Your task to perform on an android device: Open Wikipedia Image 0: 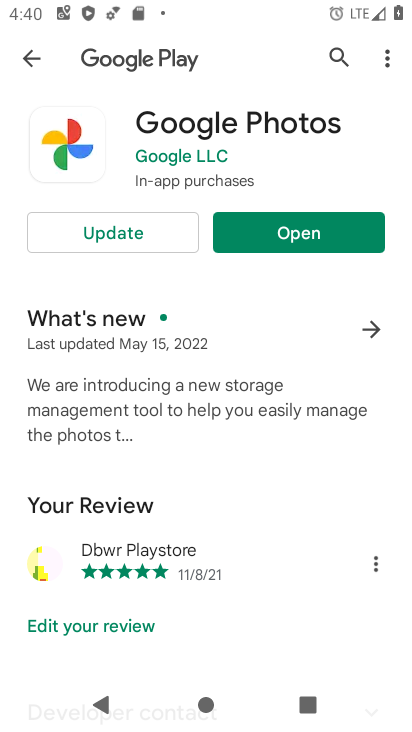
Step 0: press back button
Your task to perform on an android device: Open Wikipedia Image 1: 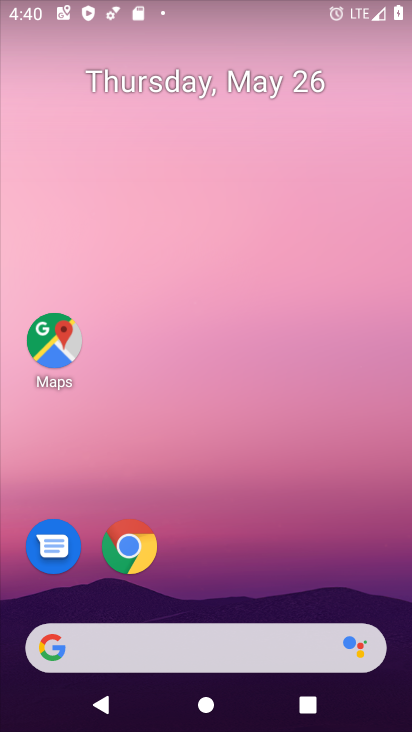
Step 1: click (141, 548)
Your task to perform on an android device: Open Wikipedia Image 2: 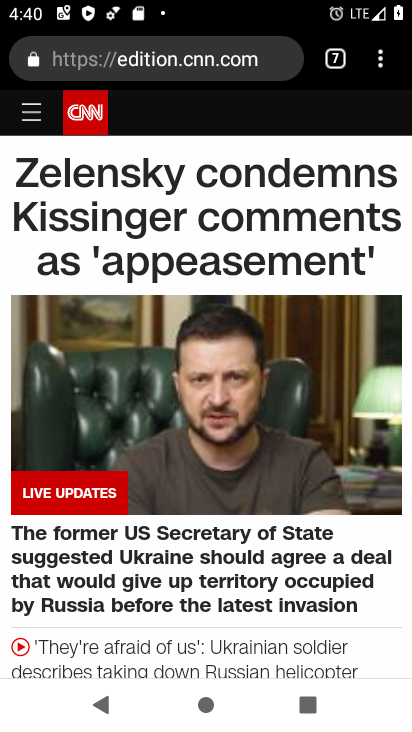
Step 2: click (333, 50)
Your task to perform on an android device: Open Wikipedia Image 3: 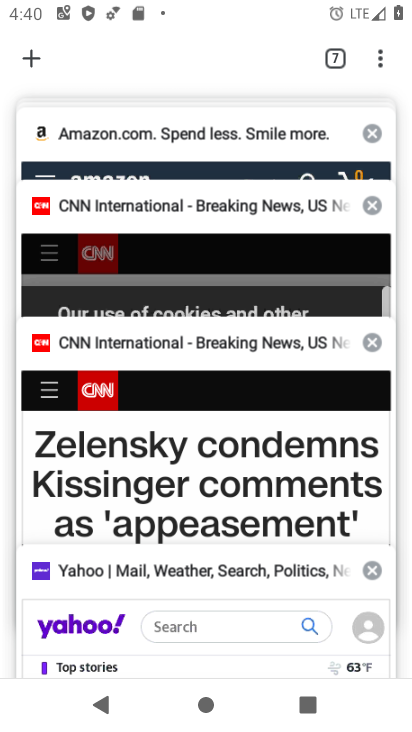
Step 3: drag from (134, 148) to (142, 604)
Your task to perform on an android device: Open Wikipedia Image 4: 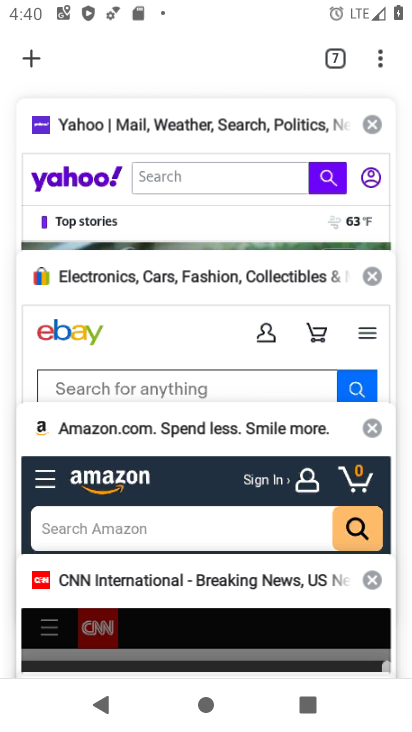
Step 4: drag from (120, 167) to (89, 691)
Your task to perform on an android device: Open Wikipedia Image 5: 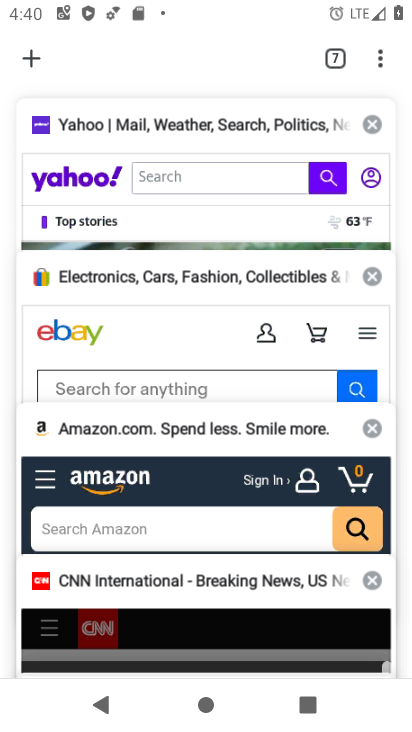
Step 5: click (28, 47)
Your task to perform on an android device: Open Wikipedia Image 6: 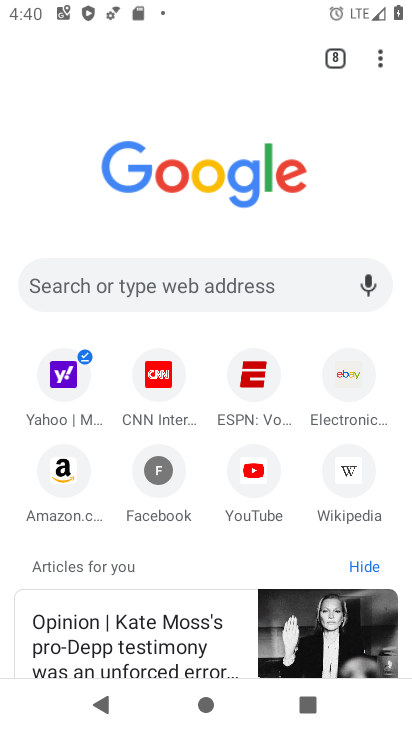
Step 6: click (338, 482)
Your task to perform on an android device: Open Wikipedia Image 7: 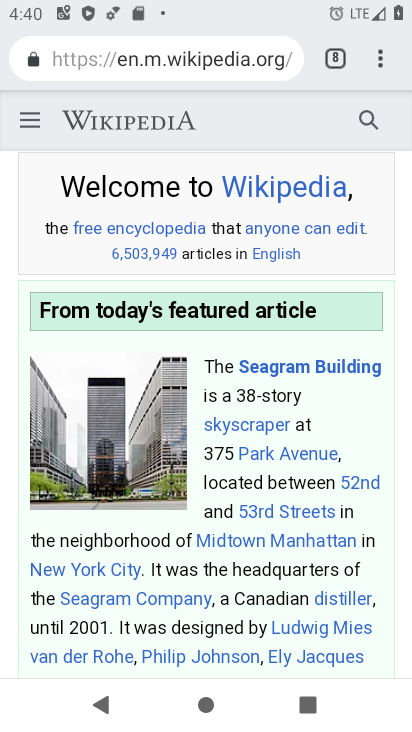
Step 7: task complete